Your task to perform on an android device: Search for the best rated vacuums on Target Image 0: 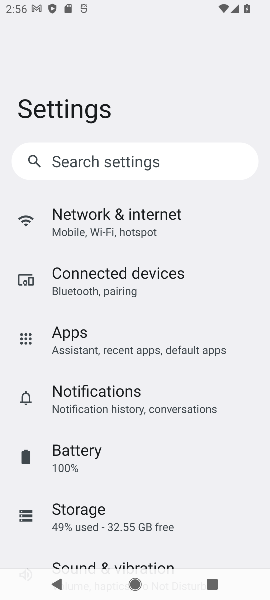
Step 0: press home button
Your task to perform on an android device: Search for the best rated vacuums on Target Image 1: 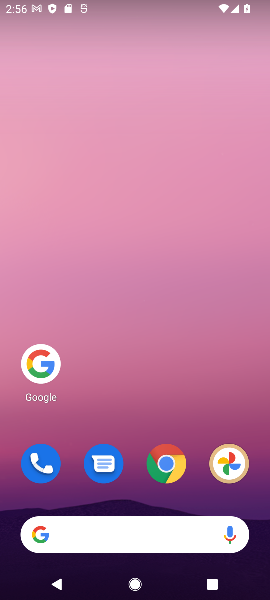
Step 1: click (42, 350)
Your task to perform on an android device: Search for the best rated vacuums on Target Image 2: 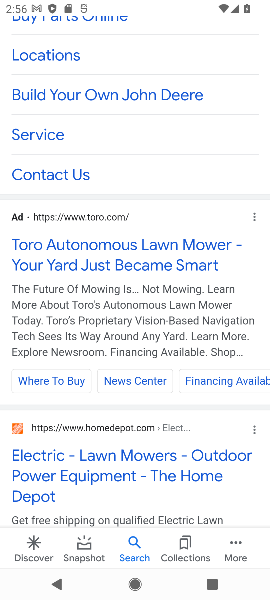
Step 2: drag from (117, 112) to (113, 453)
Your task to perform on an android device: Search for the best rated vacuums on Target Image 3: 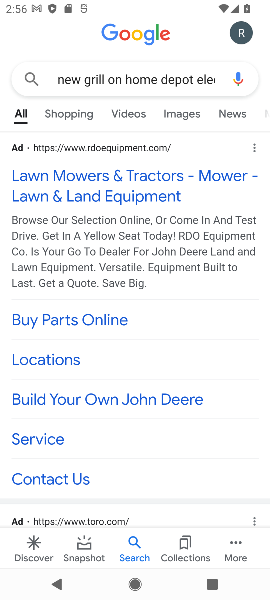
Step 3: click (180, 66)
Your task to perform on an android device: Search for the best rated vacuums on Target Image 4: 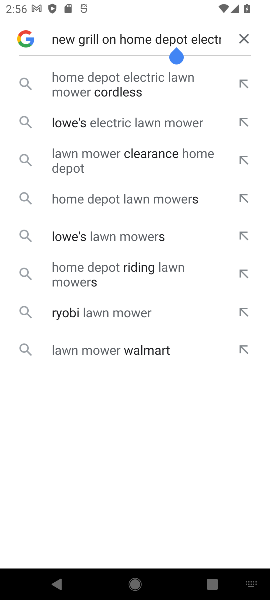
Step 4: click (245, 39)
Your task to perform on an android device: Search for the best rated vacuums on Target Image 5: 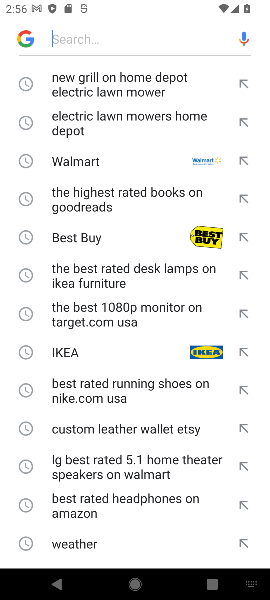
Step 5: click (122, 30)
Your task to perform on an android device: Search for the best rated vacuums on Target Image 6: 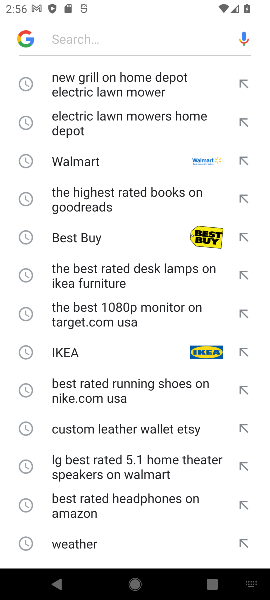
Step 6: type "the best rated vacuums on Target "
Your task to perform on an android device: Search for the best rated vacuums on Target Image 7: 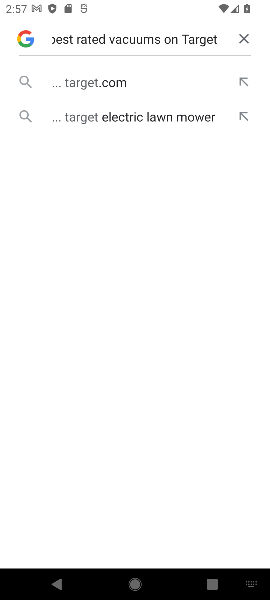
Step 7: click (122, 80)
Your task to perform on an android device: Search for the best rated vacuums on Target Image 8: 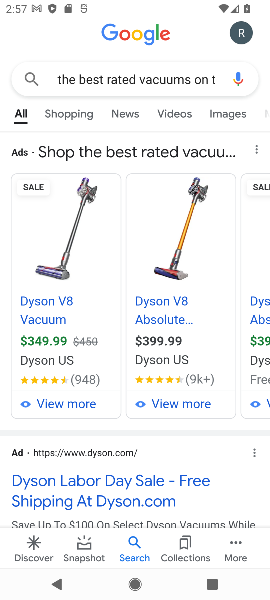
Step 8: task complete